Your task to perform on an android device: Search for the new ikea dresser Image 0: 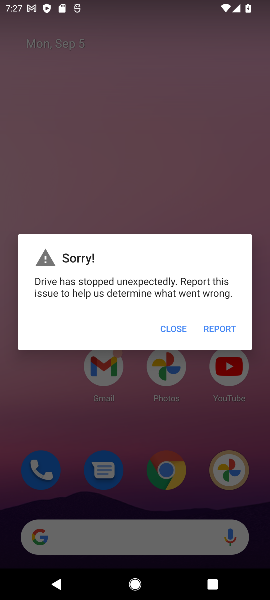
Step 0: click (172, 319)
Your task to perform on an android device: Search for the new ikea dresser Image 1: 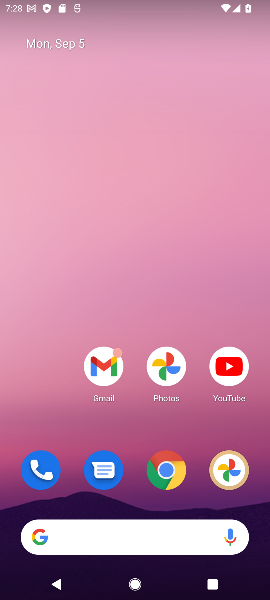
Step 1: drag from (131, 148) to (212, 479)
Your task to perform on an android device: Search for the new ikea dresser Image 2: 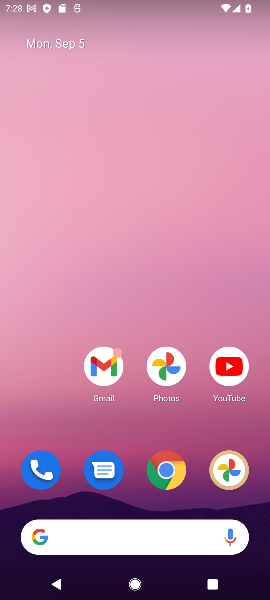
Step 2: drag from (159, 521) to (80, 132)
Your task to perform on an android device: Search for the new ikea dresser Image 3: 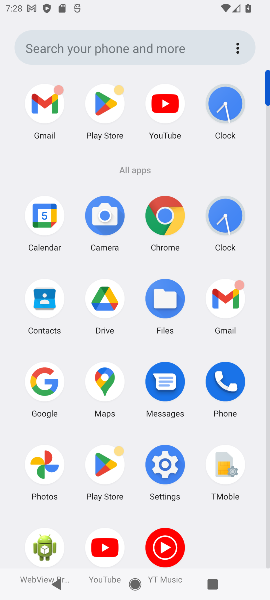
Step 3: click (50, 381)
Your task to perform on an android device: Search for the new ikea dresser Image 4: 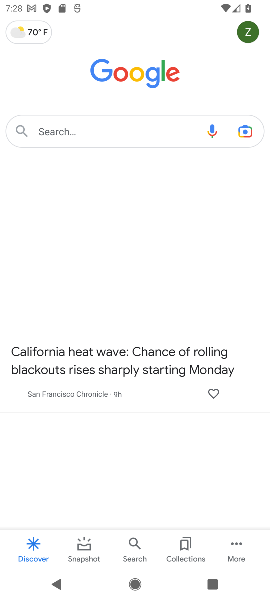
Step 4: click (116, 136)
Your task to perform on an android device: Search for the new ikea dresser Image 5: 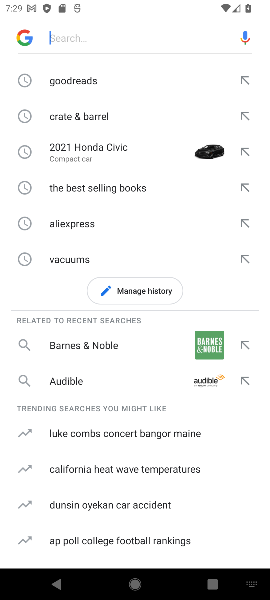
Step 5: click (257, 564)
Your task to perform on an android device: Search for the new ikea dresser Image 6: 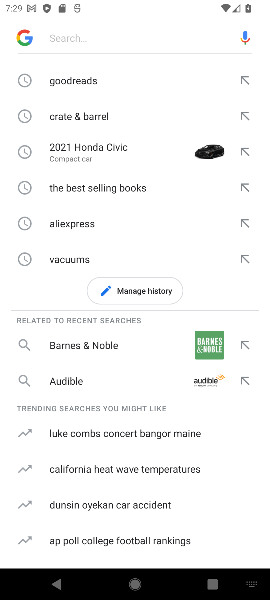
Step 6: type "the new ikea dresser"
Your task to perform on an android device: Search for the new ikea dresser Image 7: 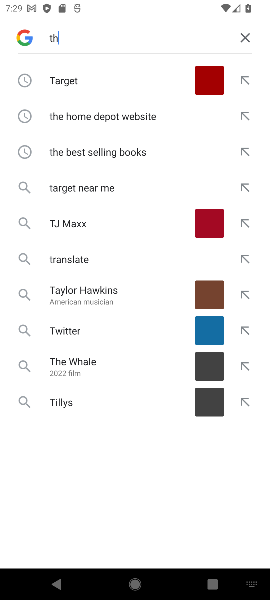
Step 7: type ""
Your task to perform on an android device: Search for the new ikea dresser Image 8: 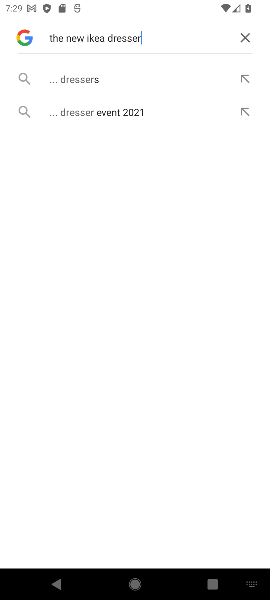
Step 8: click (84, 69)
Your task to perform on an android device: Search for the new ikea dresser Image 9: 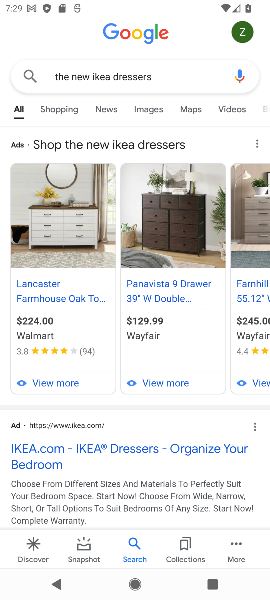
Step 9: task complete